Your task to perform on an android device: turn on showing notifications on the lock screen Image 0: 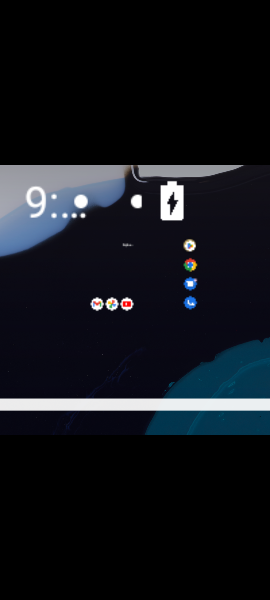
Step 0: drag from (102, 582) to (150, 92)
Your task to perform on an android device: turn on showing notifications on the lock screen Image 1: 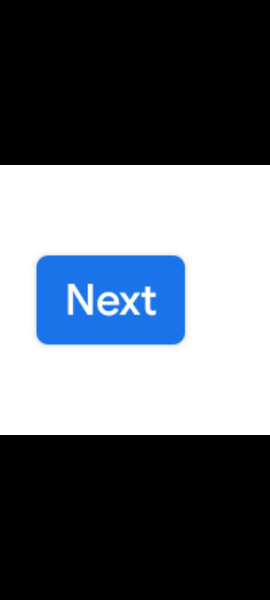
Step 1: task complete